Your task to perform on an android device: Find coffee shops on Maps Image 0: 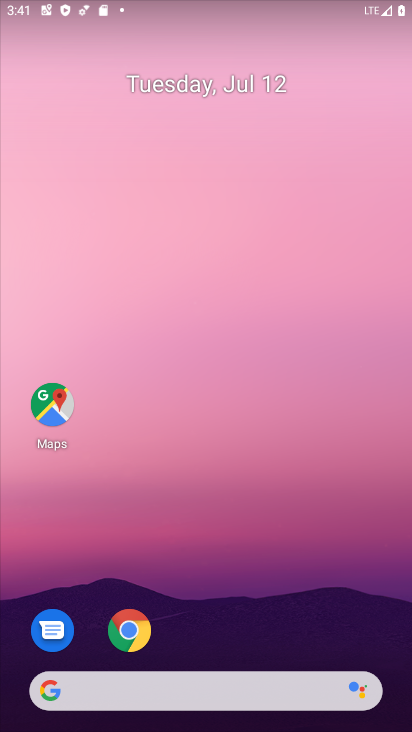
Step 0: drag from (194, 673) to (224, 8)
Your task to perform on an android device: Find coffee shops on Maps Image 1: 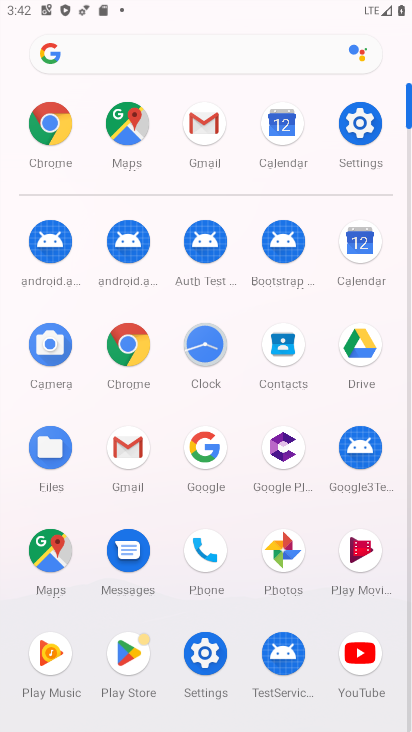
Step 1: click (54, 540)
Your task to perform on an android device: Find coffee shops on Maps Image 2: 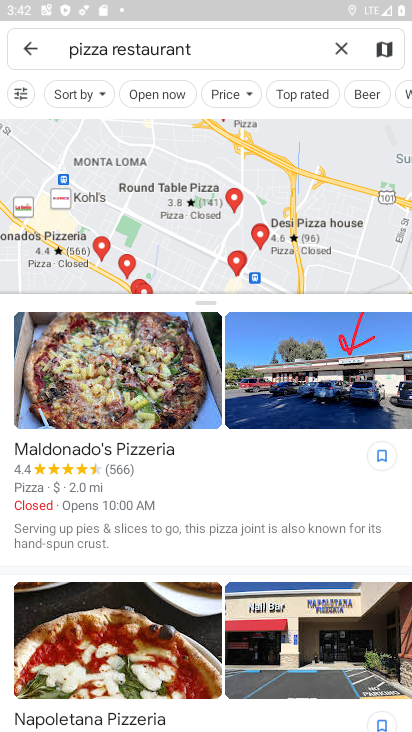
Step 2: press back button
Your task to perform on an android device: Find coffee shops on Maps Image 3: 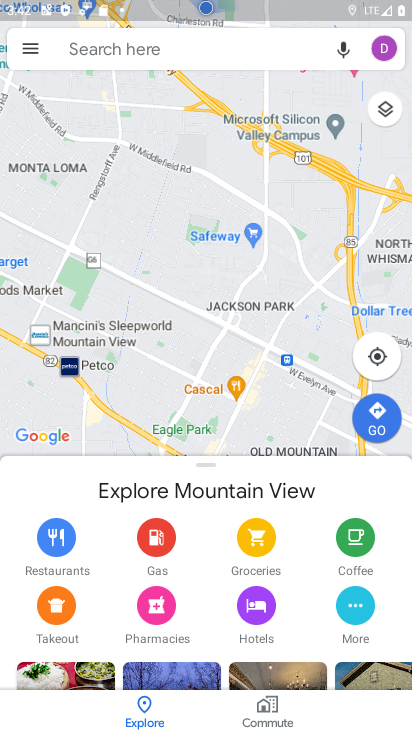
Step 3: click (165, 50)
Your task to perform on an android device: Find coffee shops on Maps Image 4: 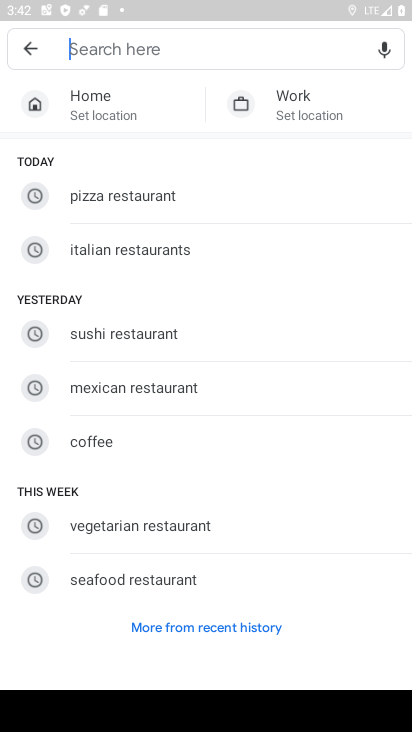
Step 4: type "coffee shops"
Your task to perform on an android device: Find coffee shops on Maps Image 5: 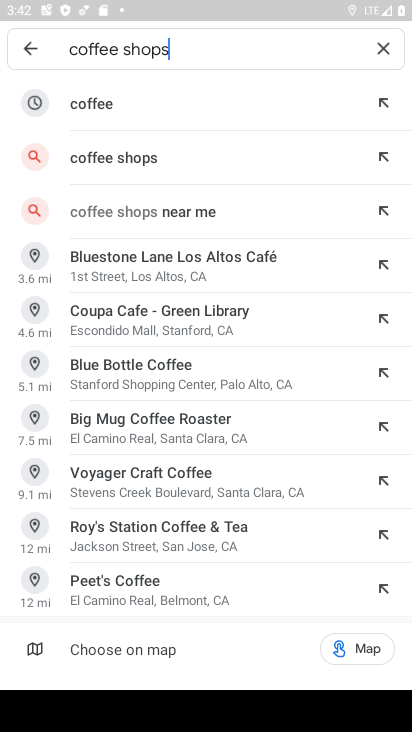
Step 5: click (167, 168)
Your task to perform on an android device: Find coffee shops on Maps Image 6: 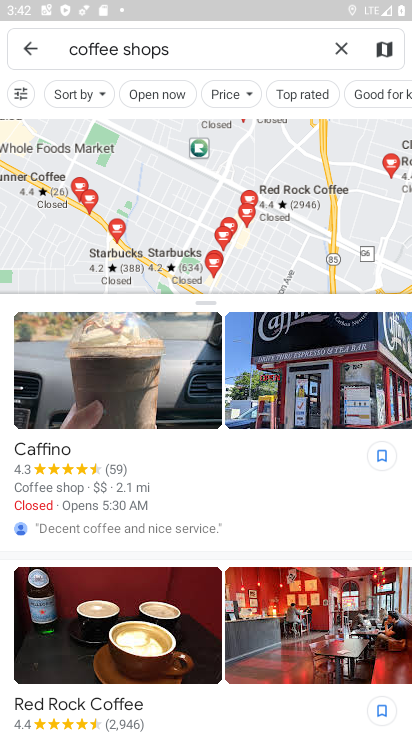
Step 6: task complete